Your task to perform on an android device: Open battery settings Image 0: 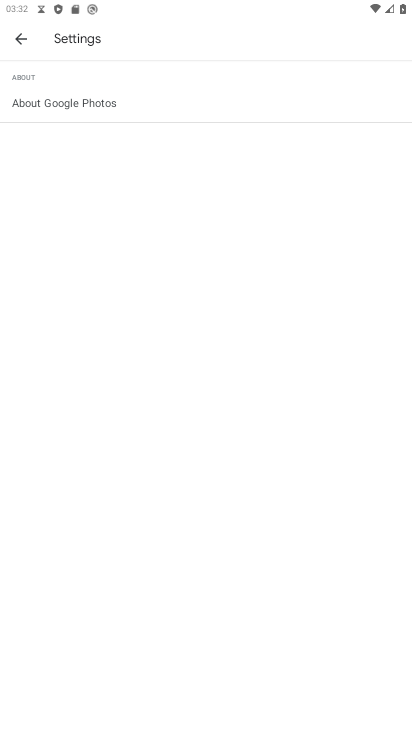
Step 0: press home button
Your task to perform on an android device: Open battery settings Image 1: 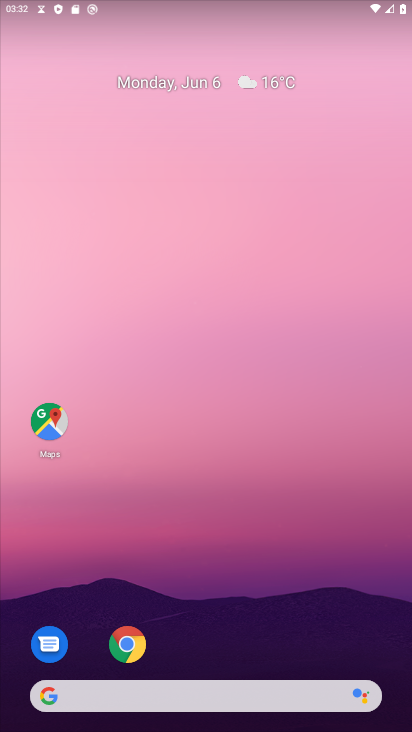
Step 1: drag from (395, 568) to (325, 60)
Your task to perform on an android device: Open battery settings Image 2: 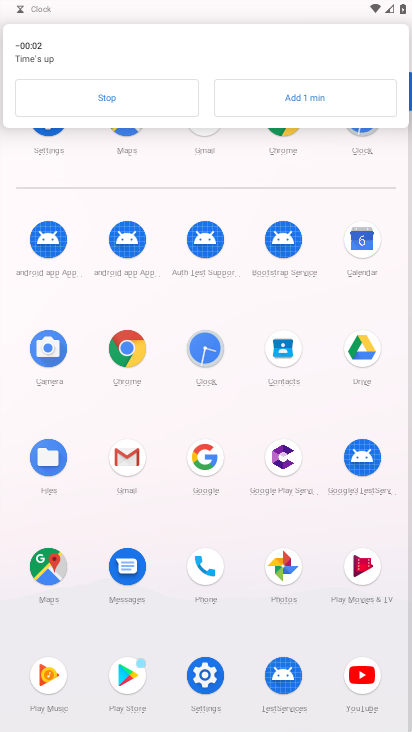
Step 2: click (106, 98)
Your task to perform on an android device: Open battery settings Image 3: 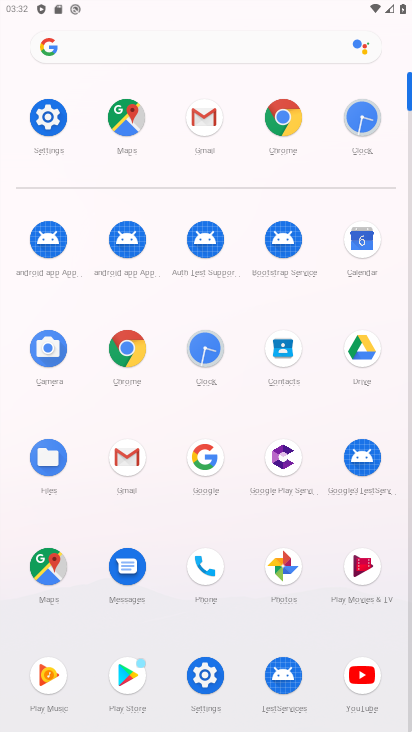
Step 3: click (207, 677)
Your task to perform on an android device: Open battery settings Image 4: 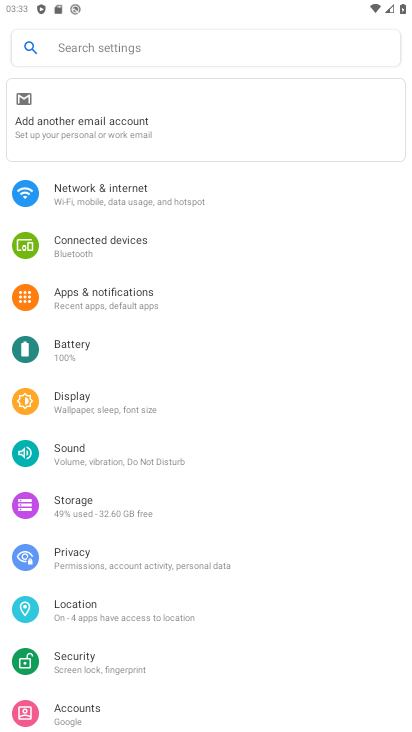
Step 4: click (66, 352)
Your task to perform on an android device: Open battery settings Image 5: 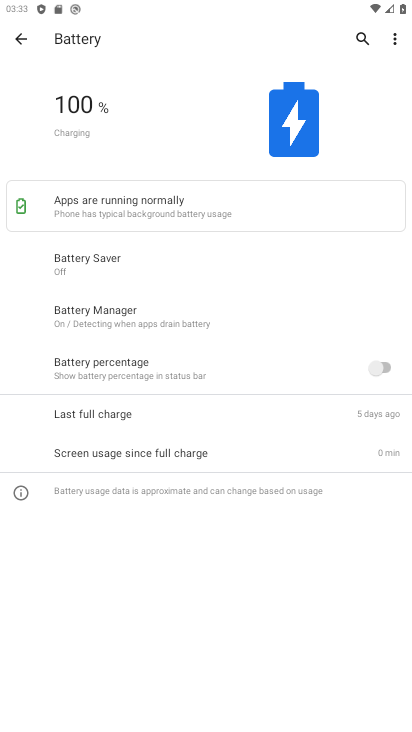
Step 5: task complete